Your task to perform on an android device: show emergency info Image 0: 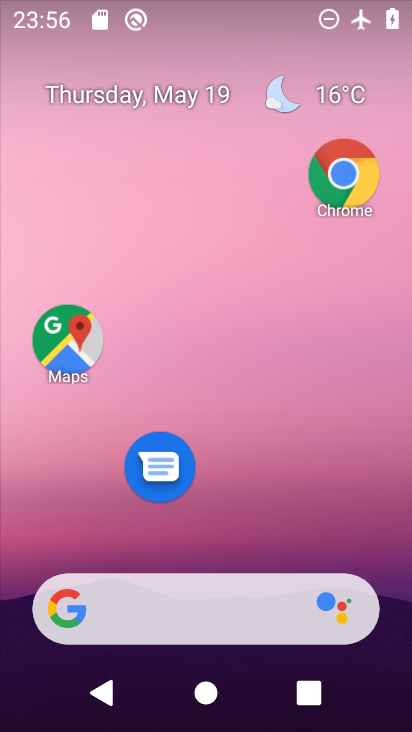
Step 0: drag from (304, 492) to (257, 141)
Your task to perform on an android device: show emergency info Image 1: 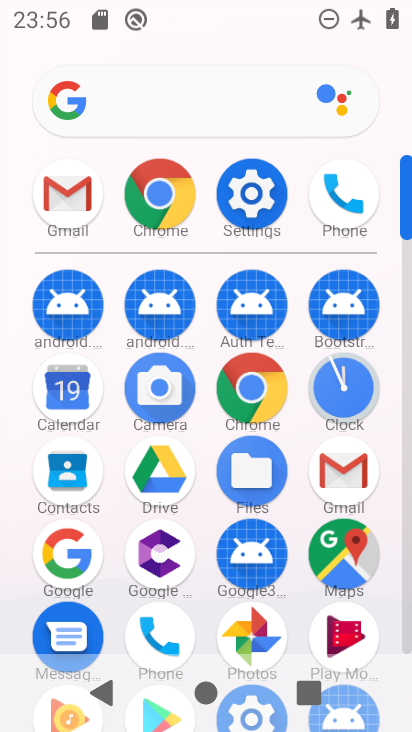
Step 1: drag from (287, 544) to (304, 213)
Your task to perform on an android device: show emergency info Image 2: 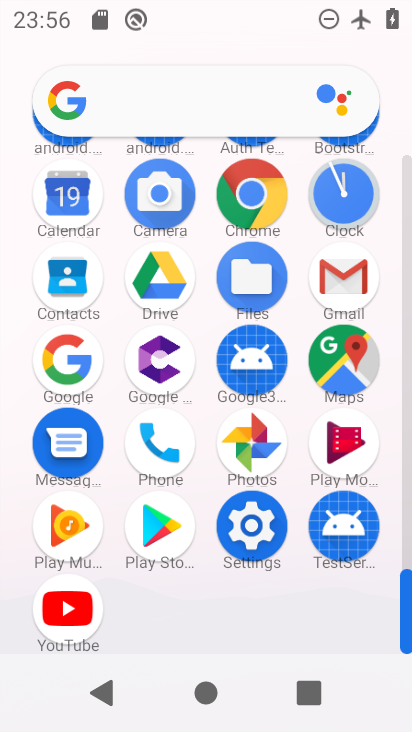
Step 2: click (249, 547)
Your task to perform on an android device: show emergency info Image 3: 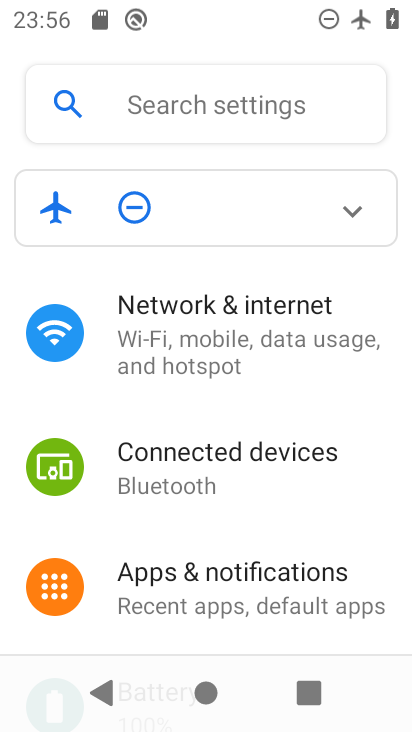
Step 3: drag from (208, 590) to (231, 85)
Your task to perform on an android device: show emergency info Image 4: 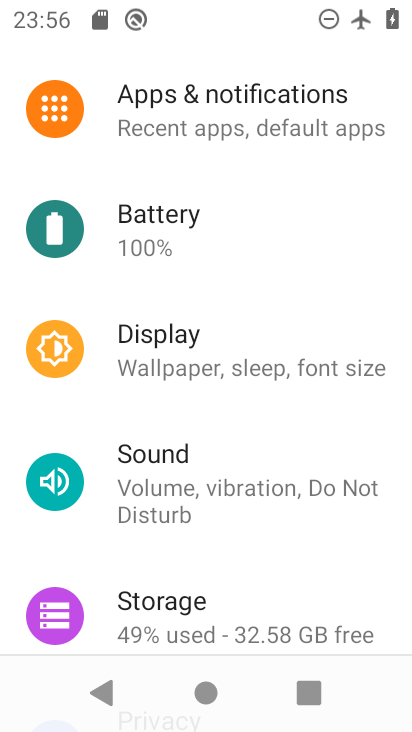
Step 4: drag from (226, 439) to (255, 109)
Your task to perform on an android device: show emergency info Image 5: 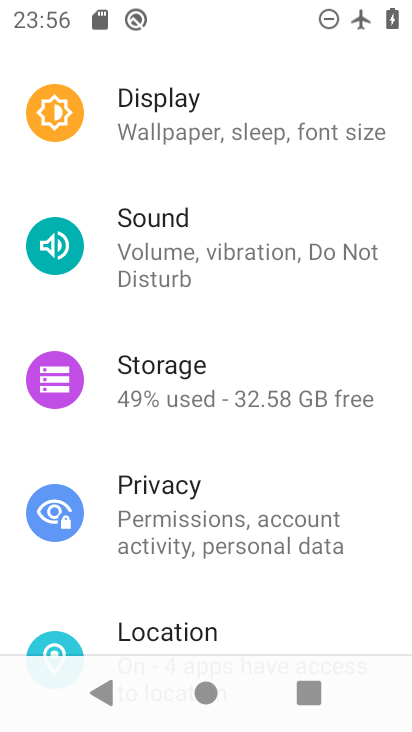
Step 5: drag from (256, 506) to (304, 146)
Your task to perform on an android device: show emergency info Image 6: 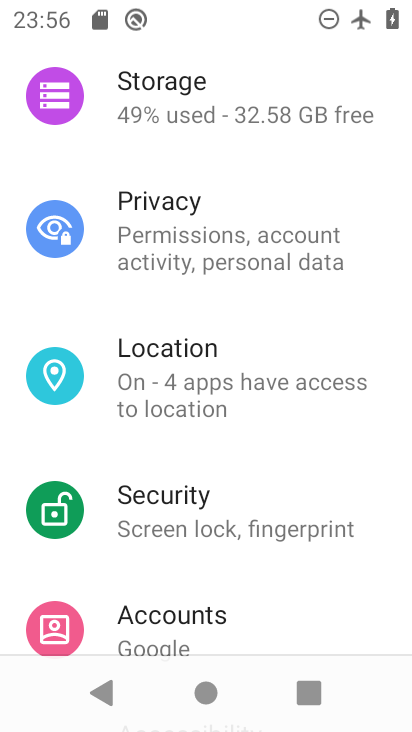
Step 6: drag from (210, 563) to (288, 124)
Your task to perform on an android device: show emergency info Image 7: 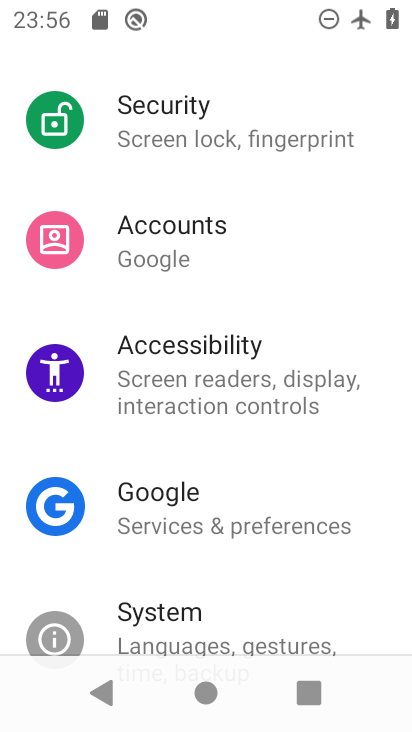
Step 7: drag from (196, 510) to (266, 168)
Your task to perform on an android device: show emergency info Image 8: 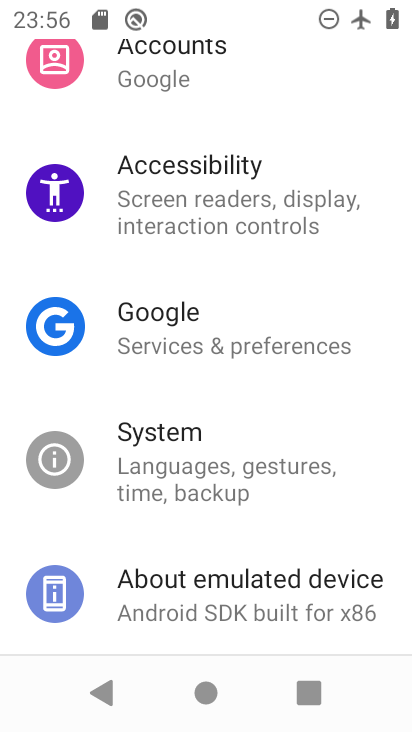
Step 8: click (137, 589)
Your task to perform on an android device: show emergency info Image 9: 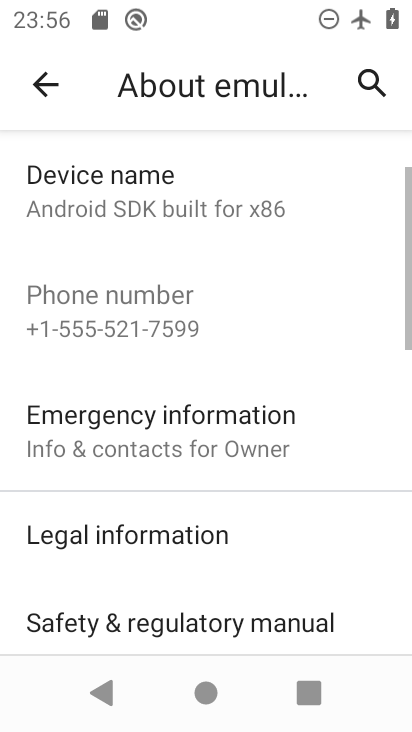
Step 9: click (251, 428)
Your task to perform on an android device: show emergency info Image 10: 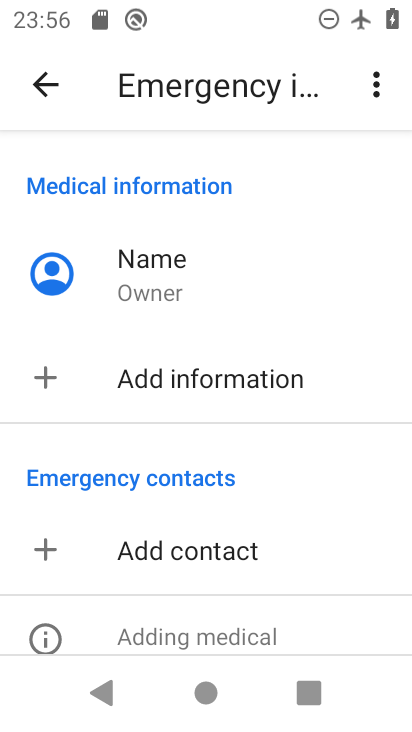
Step 10: task complete